Your task to perform on an android device: Search for seafood restaurants on Google Maps Image 0: 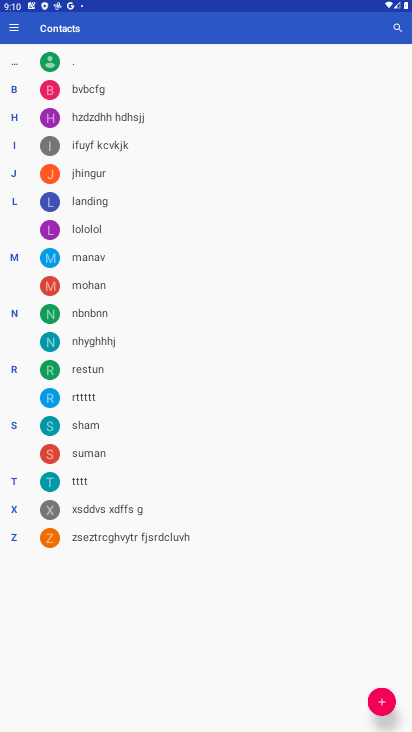
Step 0: press home button
Your task to perform on an android device: Search for seafood restaurants on Google Maps Image 1: 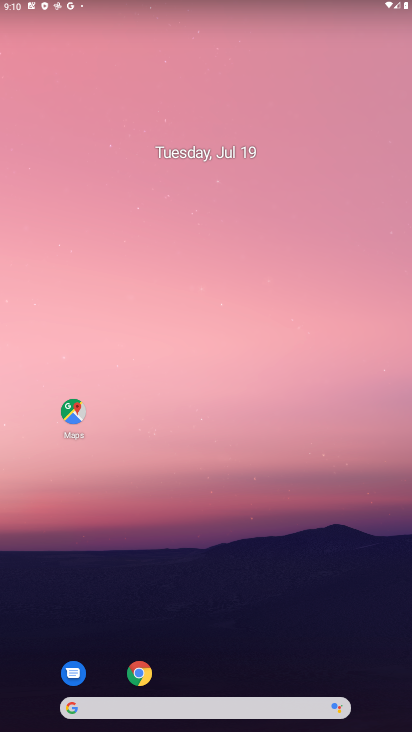
Step 1: click (85, 428)
Your task to perform on an android device: Search for seafood restaurants on Google Maps Image 2: 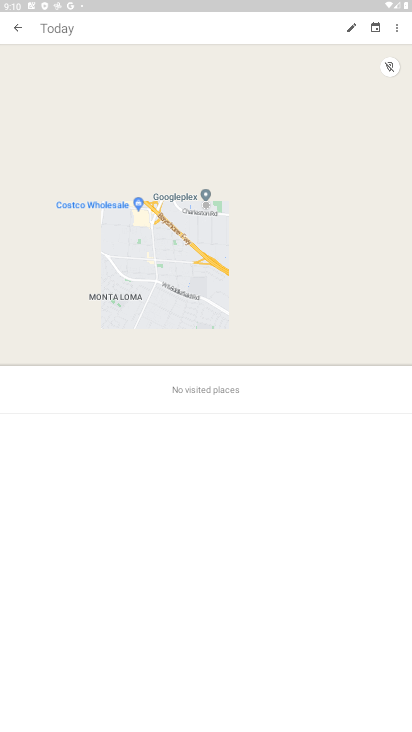
Step 2: click (143, 35)
Your task to perform on an android device: Search for seafood restaurants on Google Maps Image 3: 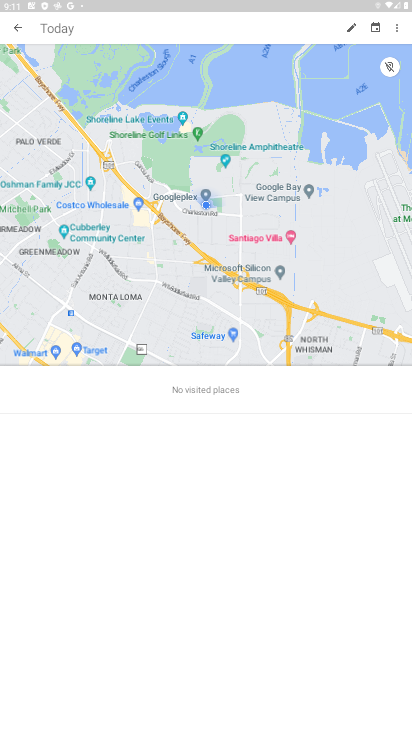
Step 3: click (178, 31)
Your task to perform on an android device: Search for seafood restaurants on Google Maps Image 4: 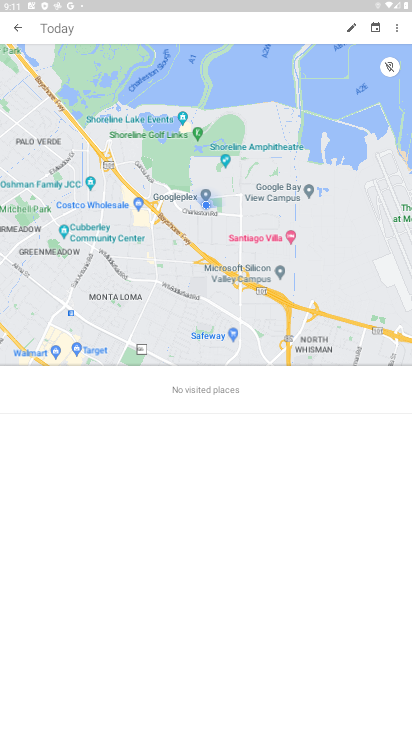
Step 4: click (15, 34)
Your task to perform on an android device: Search for seafood restaurants on Google Maps Image 5: 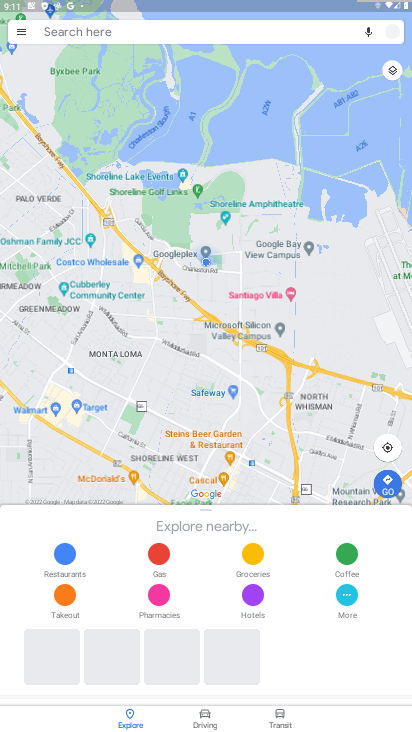
Step 5: click (102, 21)
Your task to perform on an android device: Search for seafood restaurants on Google Maps Image 6: 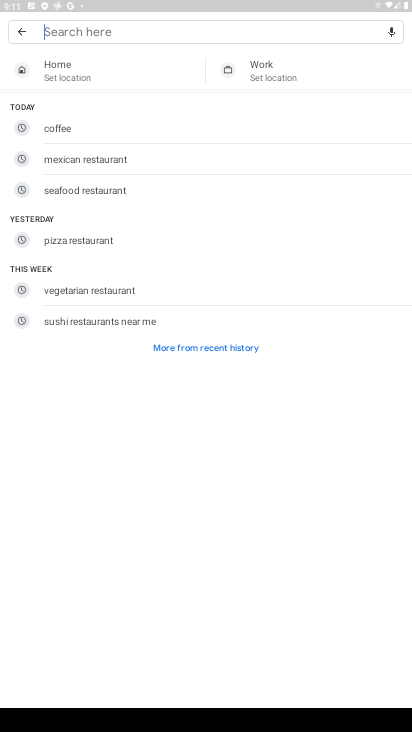
Step 6: click (90, 185)
Your task to perform on an android device: Search for seafood restaurants on Google Maps Image 7: 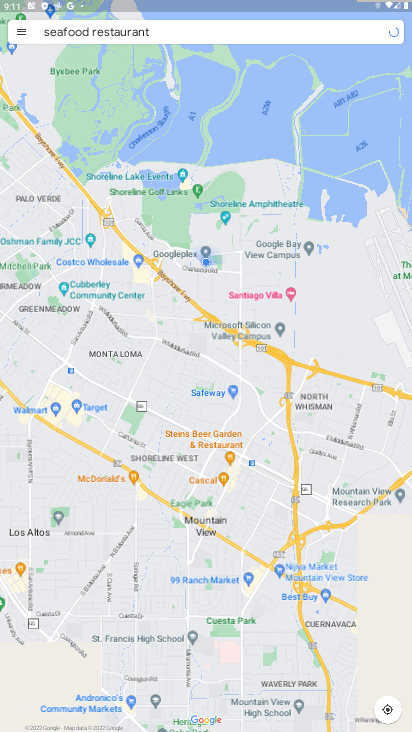
Step 7: task complete